Your task to perform on an android device: Go to settings Image 0: 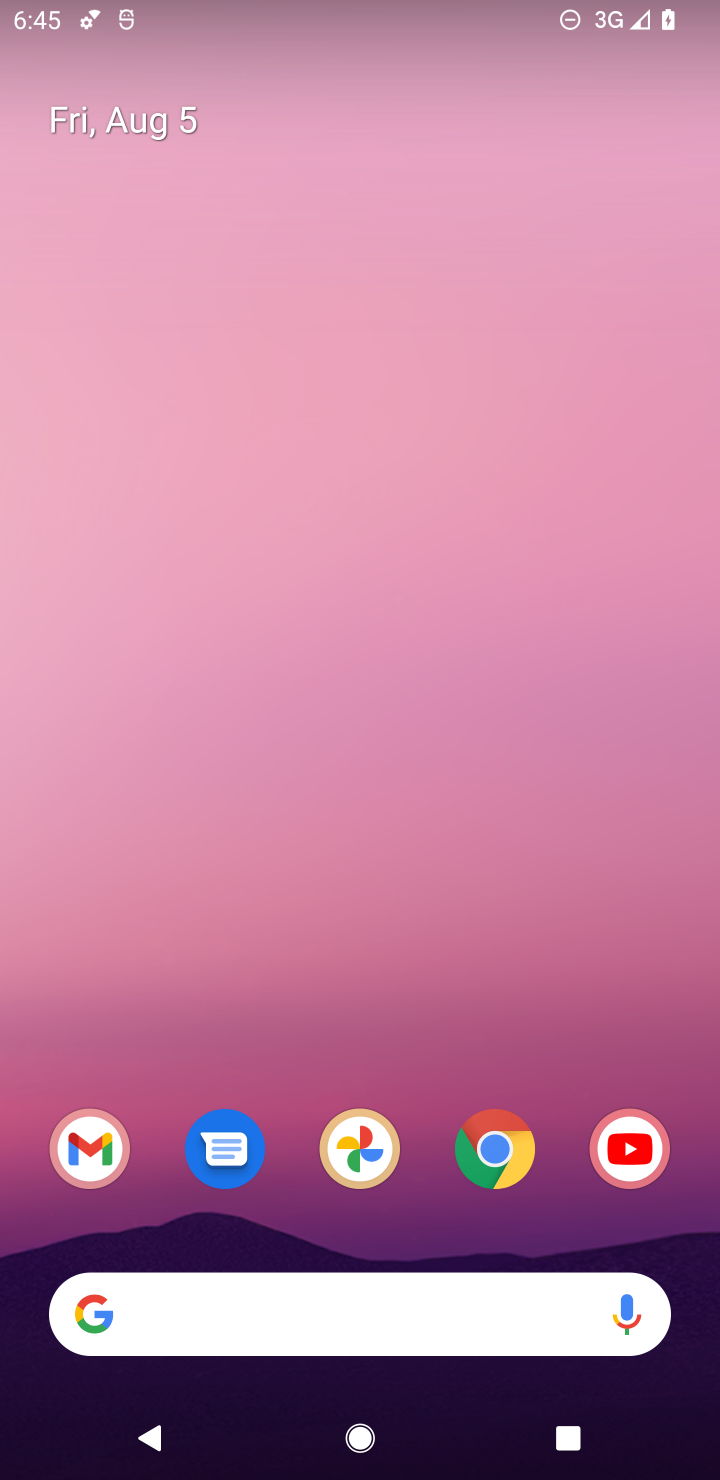
Step 0: drag from (356, 949) to (497, 137)
Your task to perform on an android device: Go to settings Image 1: 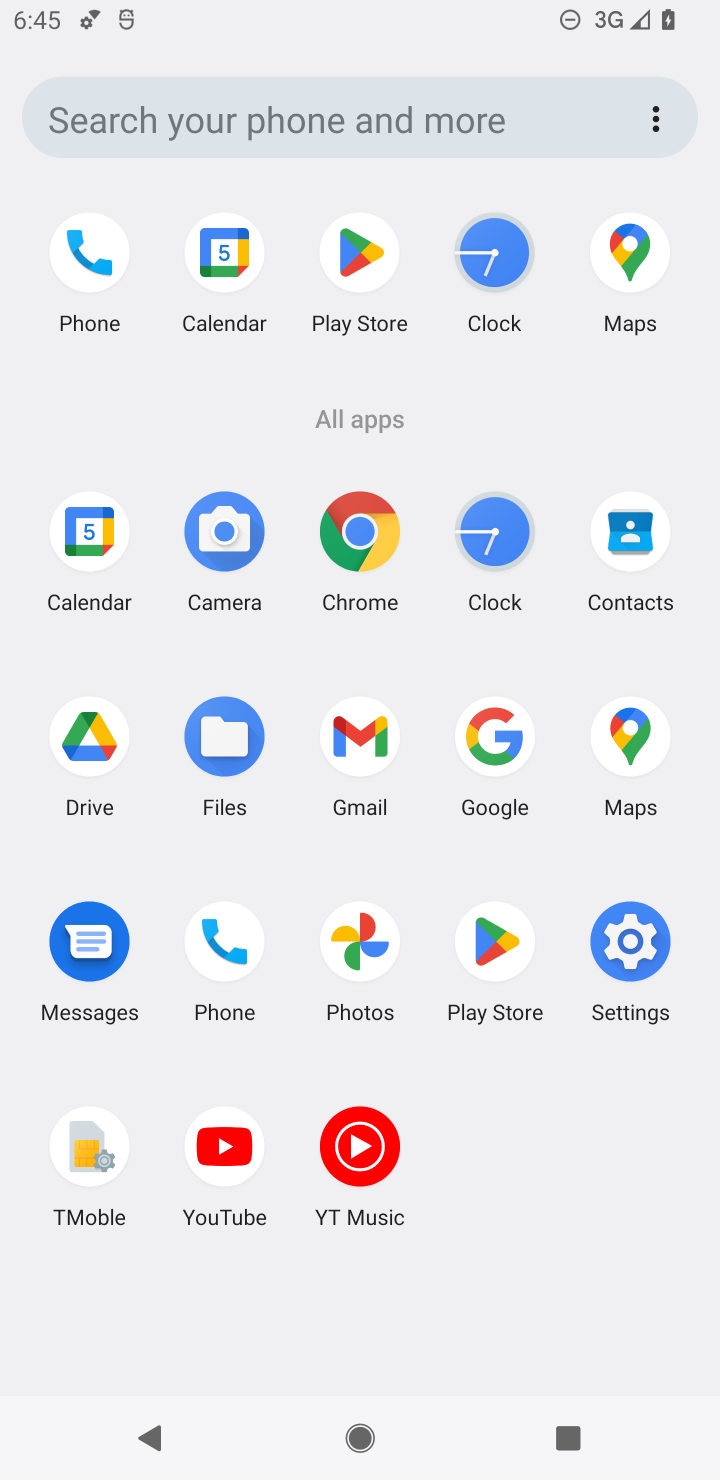
Step 1: click (627, 928)
Your task to perform on an android device: Go to settings Image 2: 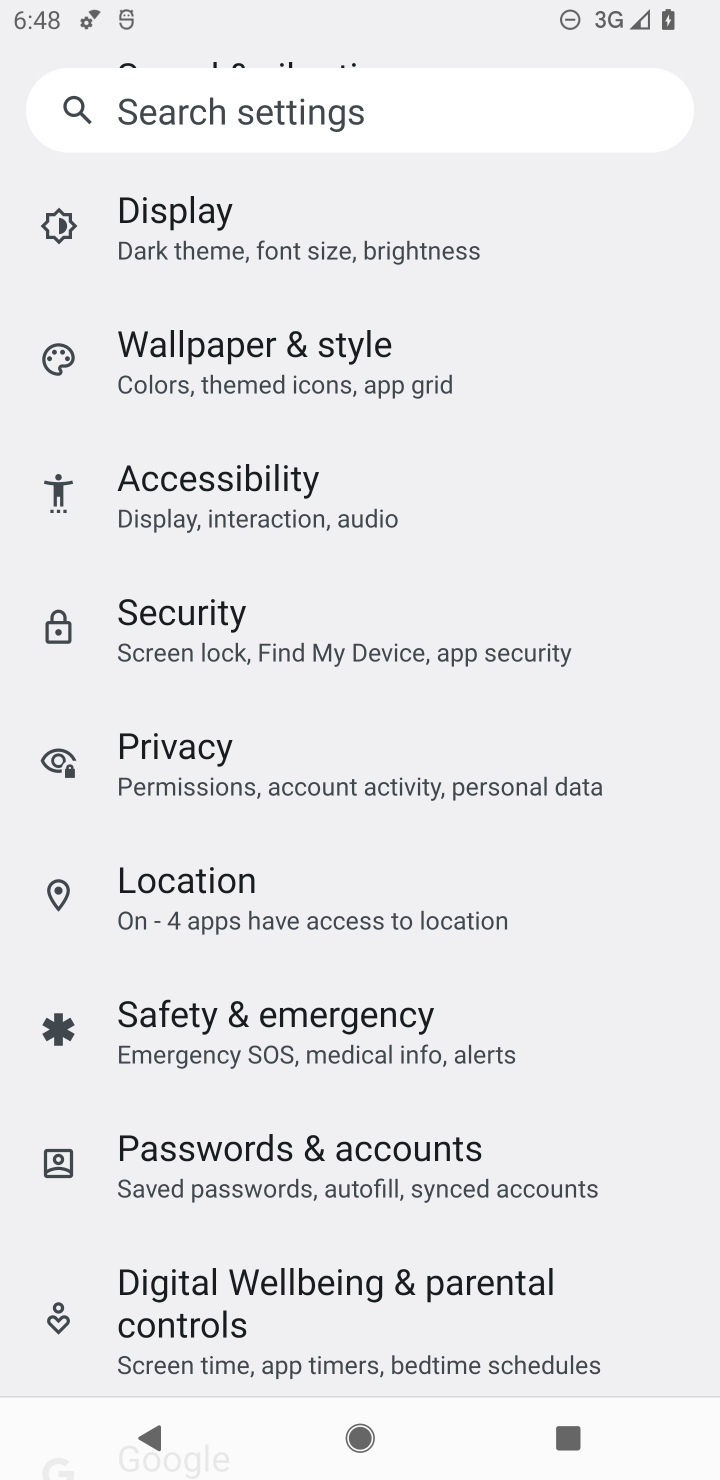
Step 2: task complete